Your task to perform on an android device: turn vacation reply on in the gmail app Image 0: 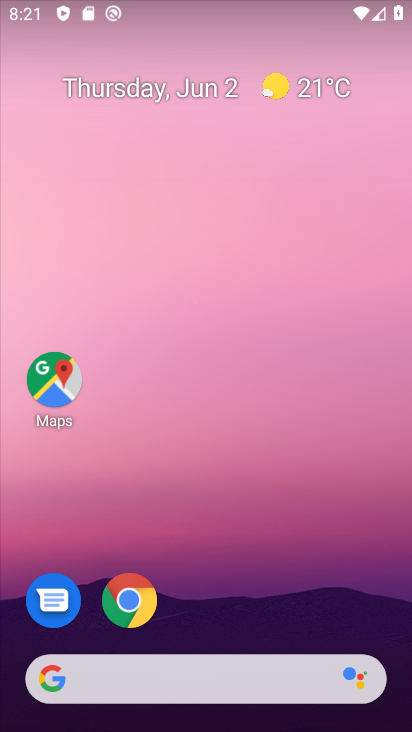
Step 0: drag from (228, 627) to (235, 213)
Your task to perform on an android device: turn vacation reply on in the gmail app Image 1: 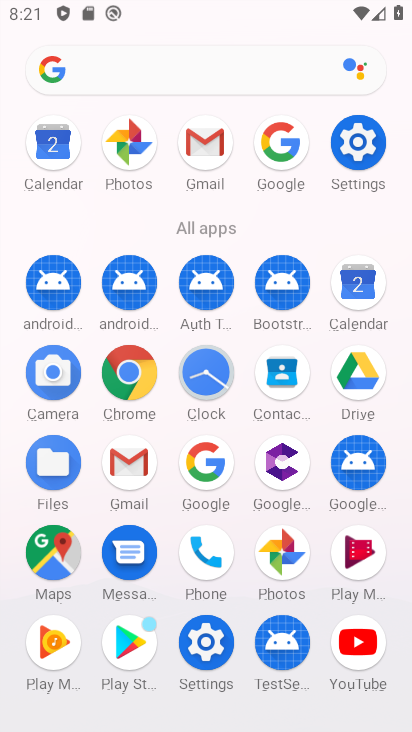
Step 1: click (207, 163)
Your task to perform on an android device: turn vacation reply on in the gmail app Image 2: 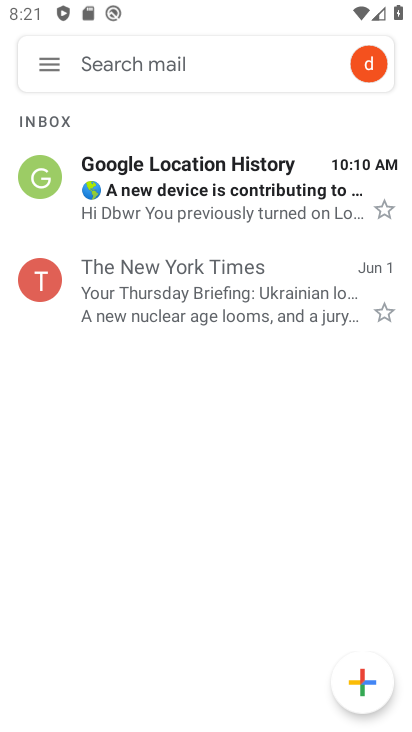
Step 2: click (38, 65)
Your task to perform on an android device: turn vacation reply on in the gmail app Image 3: 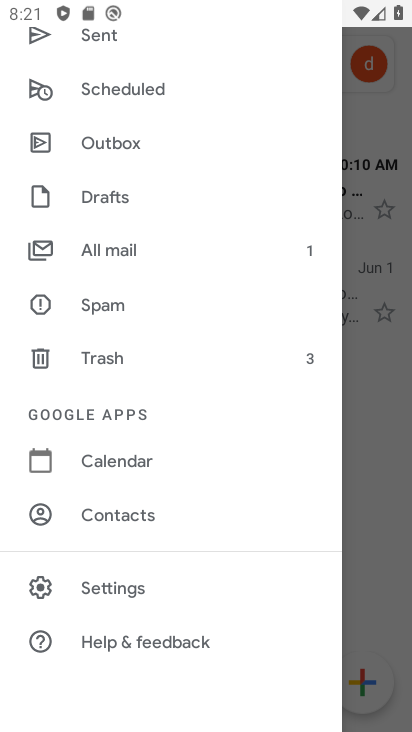
Step 3: click (143, 579)
Your task to perform on an android device: turn vacation reply on in the gmail app Image 4: 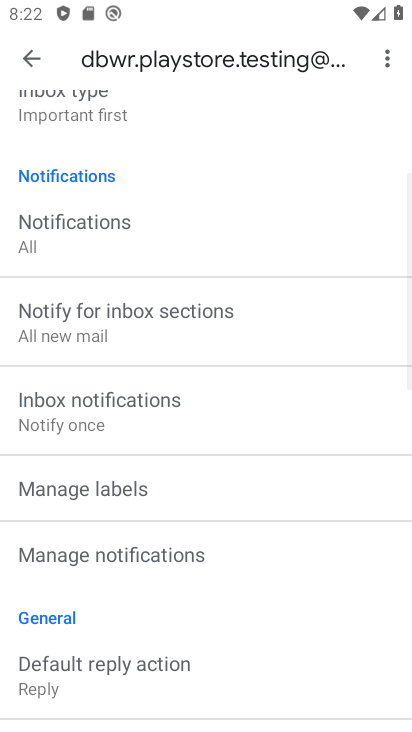
Step 4: drag from (190, 608) to (214, 229)
Your task to perform on an android device: turn vacation reply on in the gmail app Image 5: 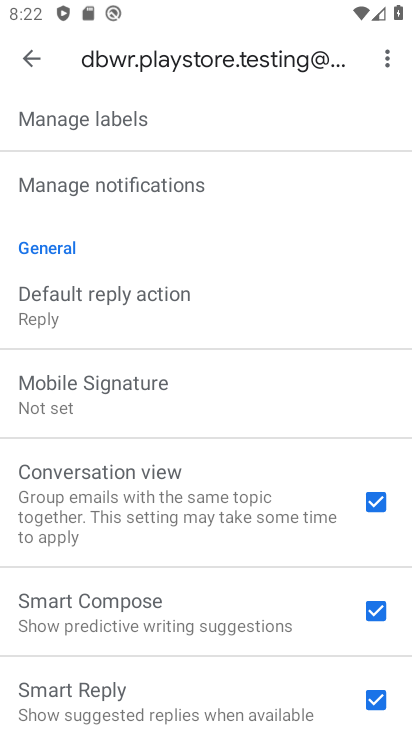
Step 5: drag from (169, 687) to (187, 329)
Your task to perform on an android device: turn vacation reply on in the gmail app Image 6: 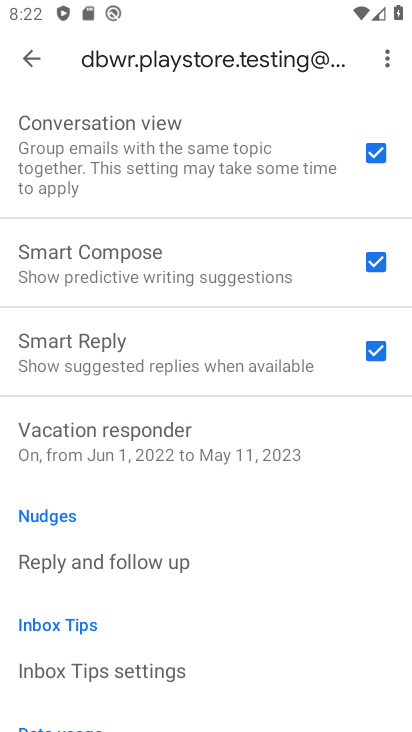
Step 6: click (183, 460)
Your task to perform on an android device: turn vacation reply on in the gmail app Image 7: 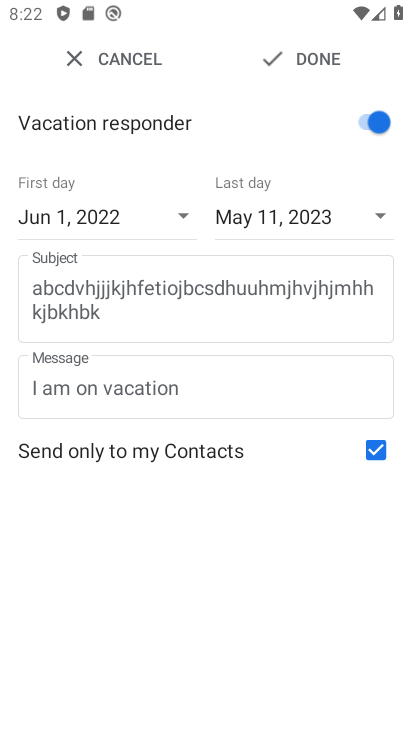
Step 7: task complete